Your task to perform on an android device: Open settings Image 0: 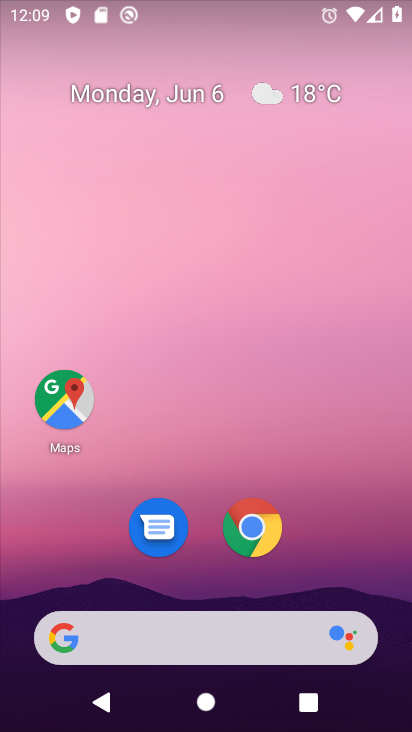
Step 0: drag from (178, 623) to (116, 728)
Your task to perform on an android device: Open settings Image 1: 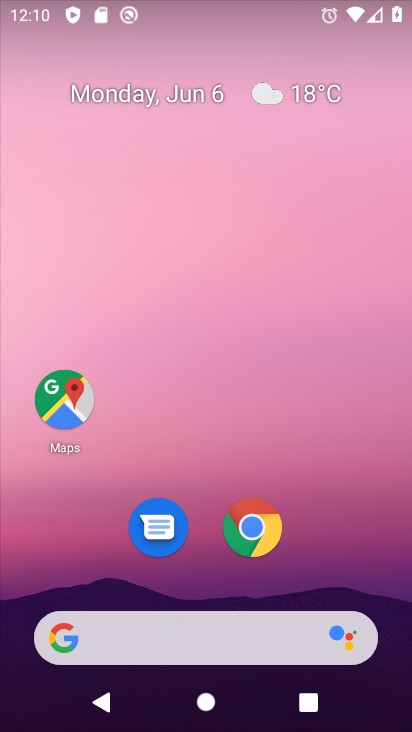
Step 1: drag from (201, 616) to (261, 0)
Your task to perform on an android device: Open settings Image 2: 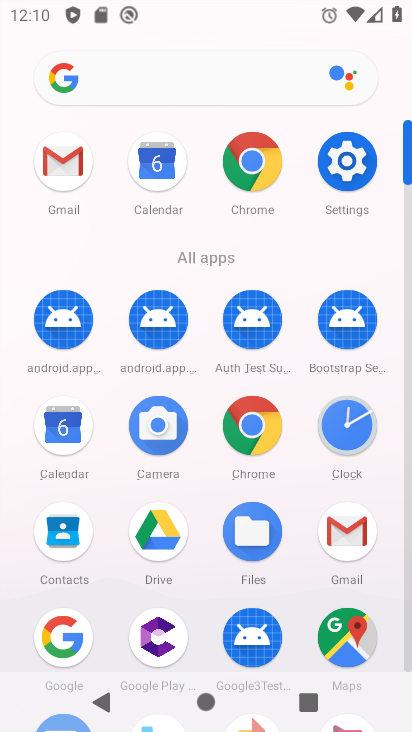
Step 2: click (337, 176)
Your task to perform on an android device: Open settings Image 3: 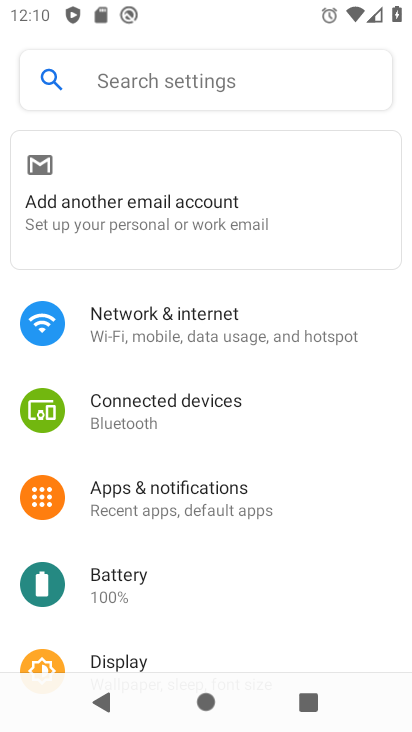
Step 3: task complete